Your task to perform on an android device: Go to accessibility settings Image 0: 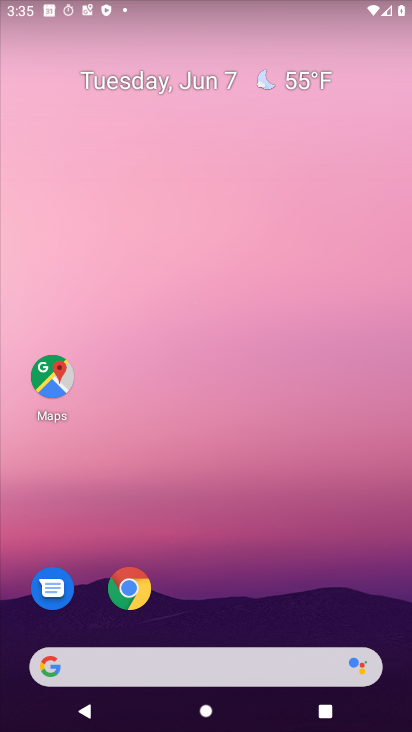
Step 0: press home button
Your task to perform on an android device: Go to accessibility settings Image 1: 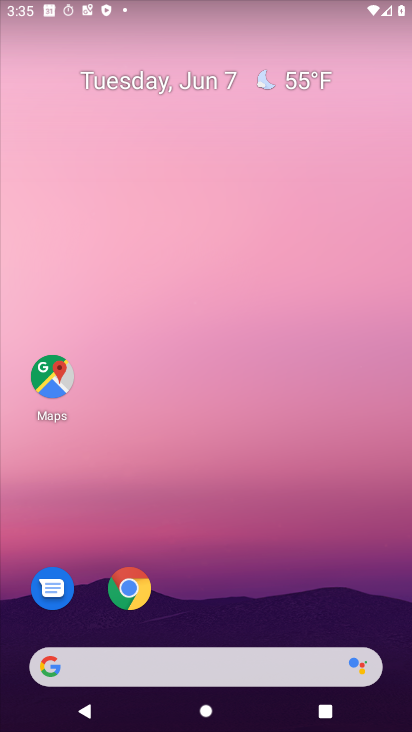
Step 1: drag from (227, 638) to (217, 0)
Your task to perform on an android device: Go to accessibility settings Image 2: 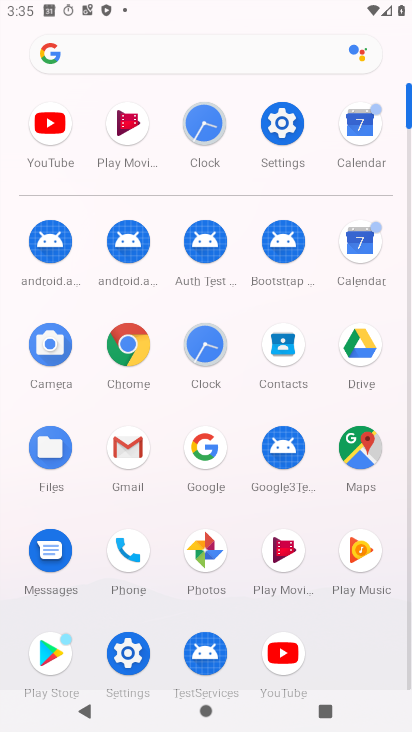
Step 2: click (286, 125)
Your task to perform on an android device: Go to accessibility settings Image 3: 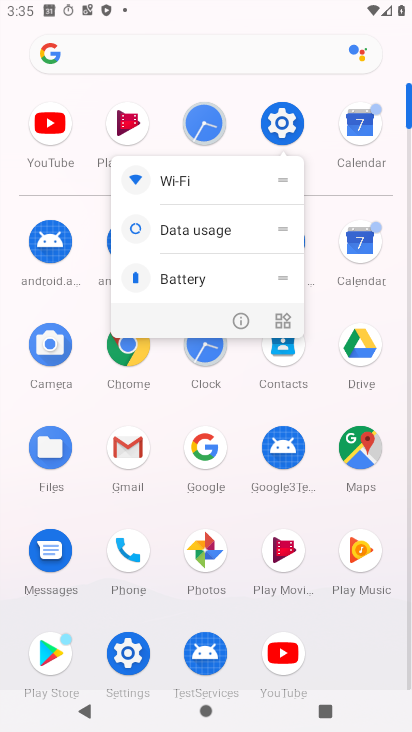
Step 3: click (286, 128)
Your task to perform on an android device: Go to accessibility settings Image 4: 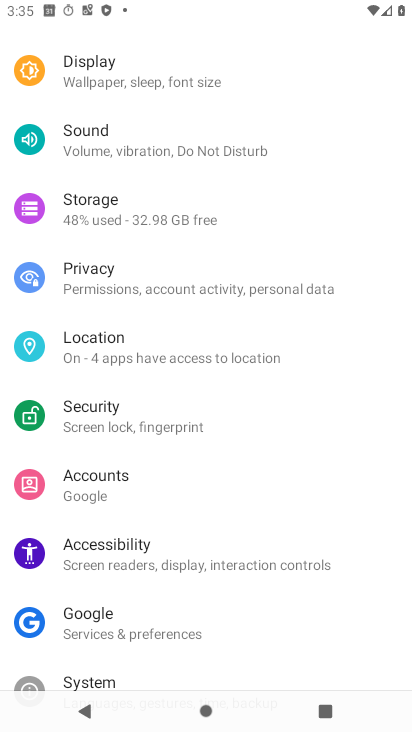
Step 4: click (96, 549)
Your task to perform on an android device: Go to accessibility settings Image 5: 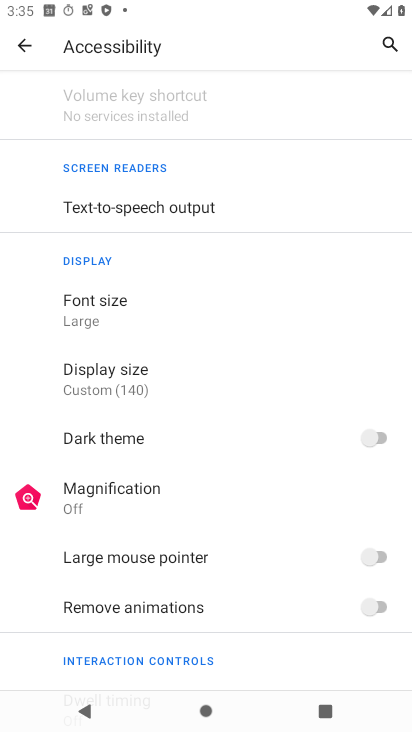
Step 5: task complete